Your task to perform on an android device: delete the emails in spam in the gmail app Image 0: 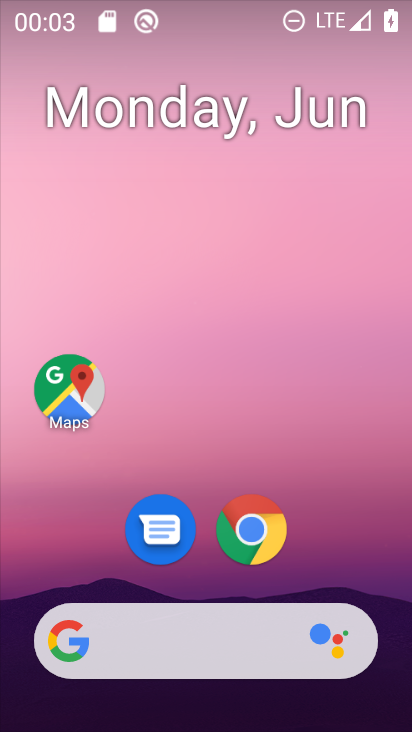
Step 0: drag from (398, 637) to (362, 123)
Your task to perform on an android device: delete the emails in spam in the gmail app Image 1: 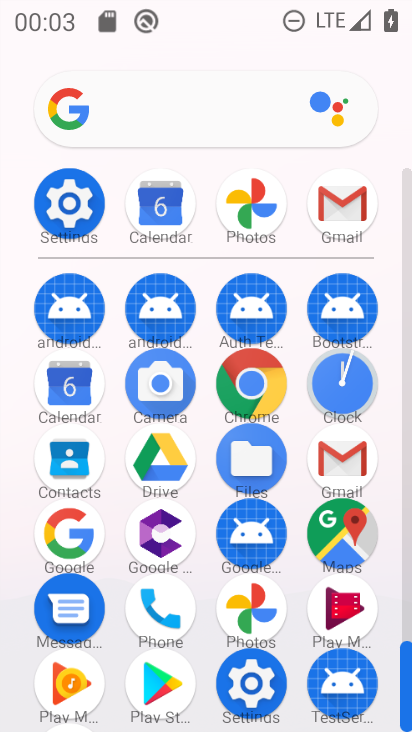
Step 1: click (344, 460)
Your task to perform on an android device: delete the emails in spam in the gmail app Image 2: 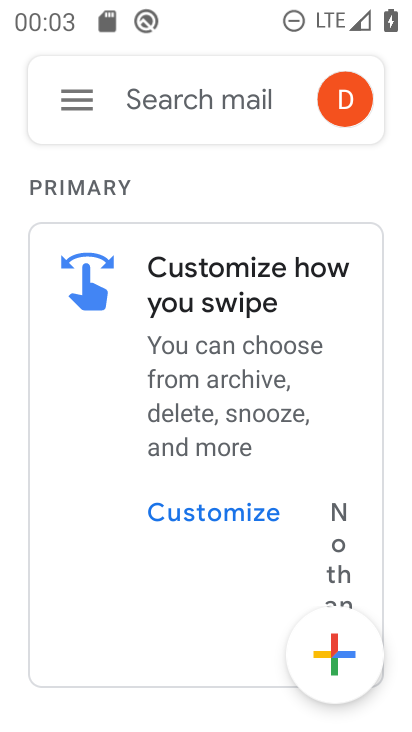
Step 2: click (76, 101)
Your task to perform on an android device: delete the emails in spam in the gmail app Image 3: 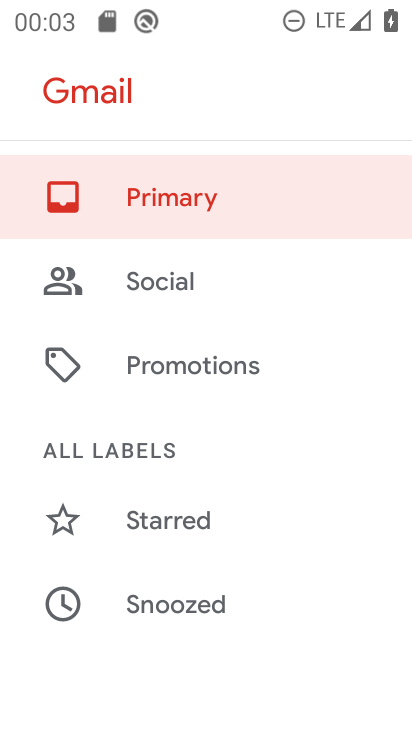
Step 3: drag from (264, 603) to (312, 223)
Your task to perform on an android device: delete the emails in spam in the gmail app Image 4: 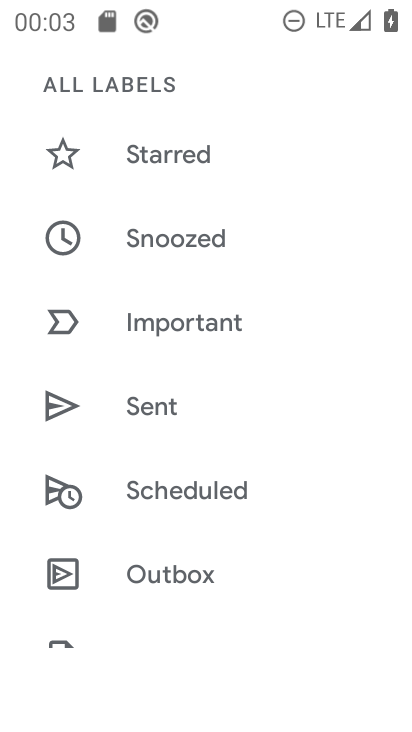
Step 4: drag from (287, 582) to (293, 125)
Your task to perform on an android device: delete the emails in spam in the gmail app Image 5: 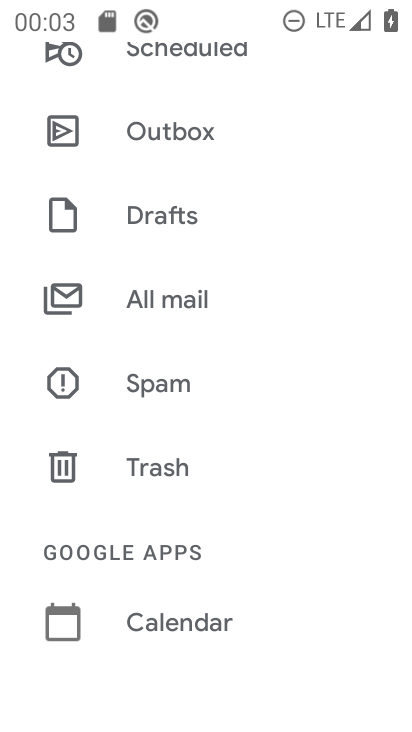
Step 5: click (154, 380)
Your task to perform on an android device: delete the emails in spam in the gmail app Image 6: 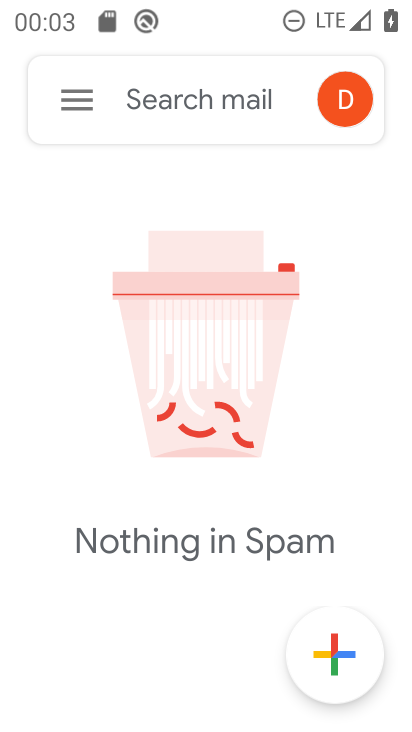
Step 6: task complete